Your task to perform on an android device: Open Yahoo.com Image 0: 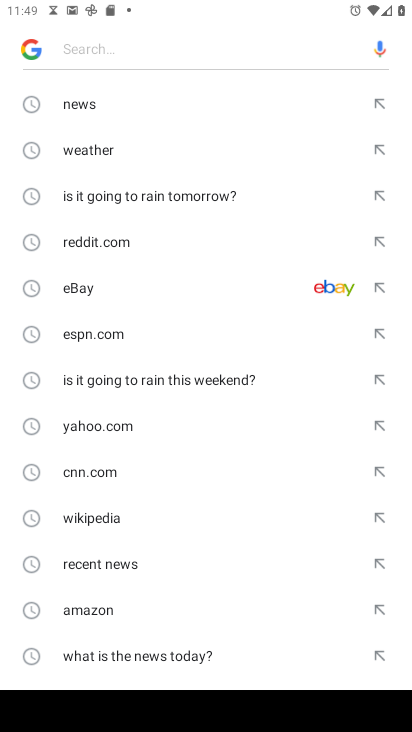
Step 0: click (110, 423)
Your task to perform on an android device: Open Yahoo.com Image 1: 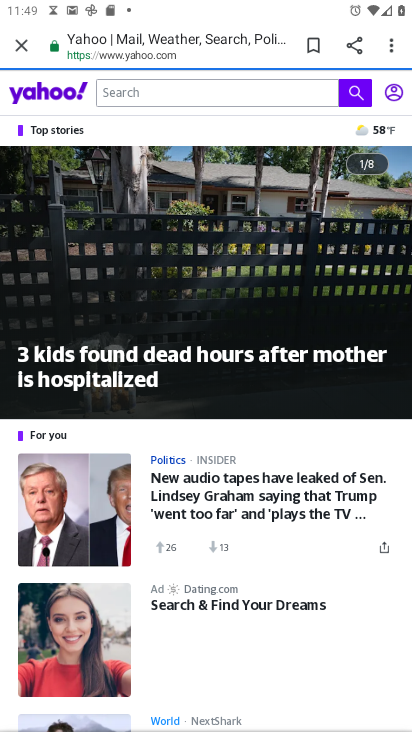
Step 1: task complete